Your task to perform on an android device: What is the recent news? Image 0: 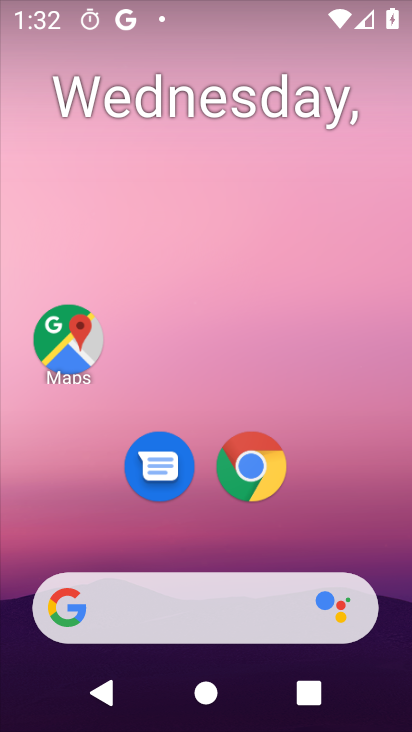
Step 0: click (125, 592)
Your task to perform on an android device: What is the recent news? Image 1: 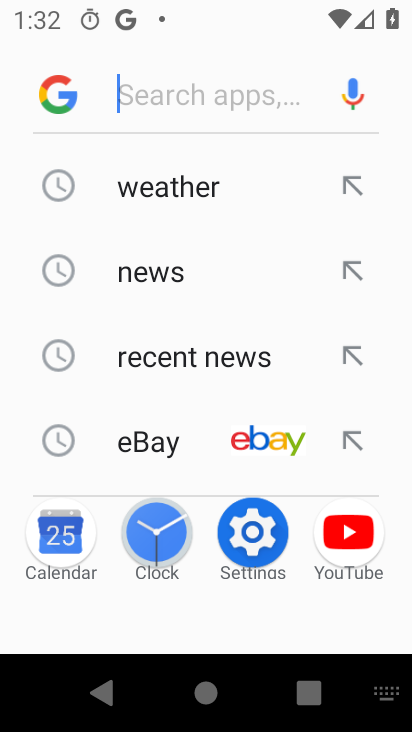
Step 1: click (204, 355)
Your task to perform on an android device: What is the recent news? Image 2: 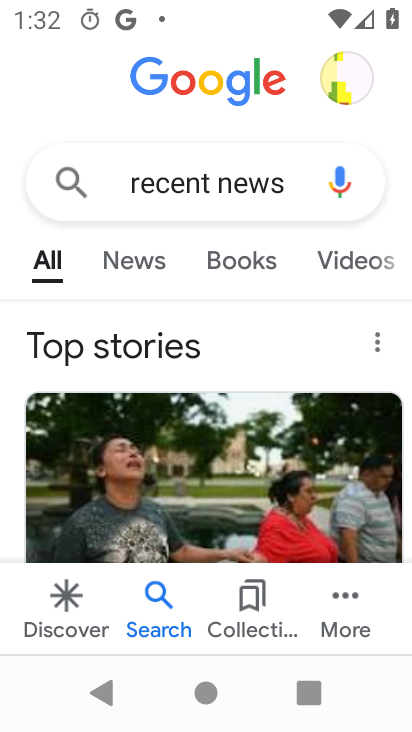
Step 2: task complete